Your task to perform on an android device: Open the web browser Image 0: 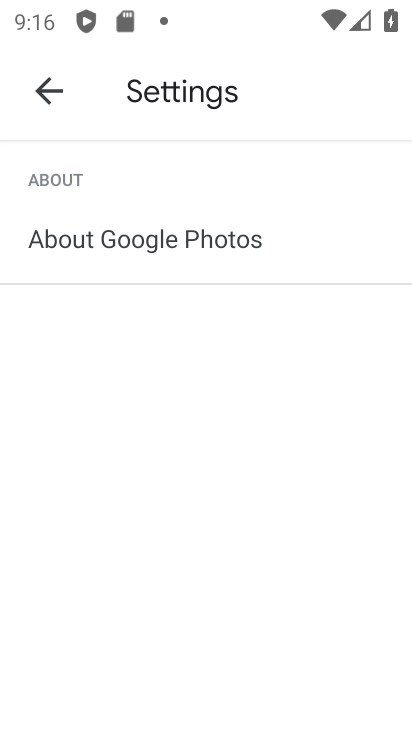
Step 0: press home button
Your task to perform on an android device: Open the web browser Image 1: 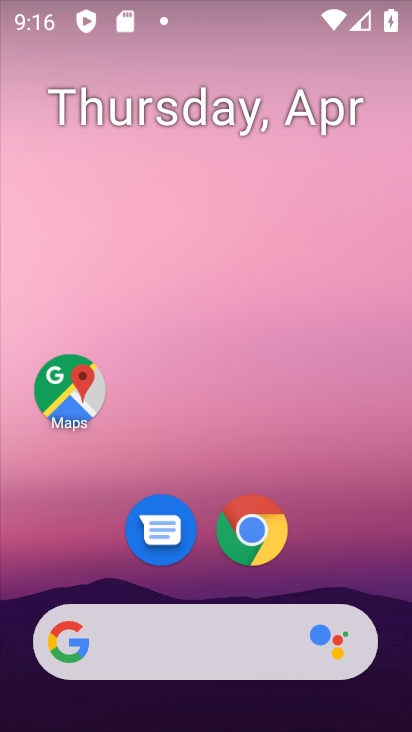
Step 1: task complete